Your task to perform on an android device: set default search engine in the chrome app Image 0: 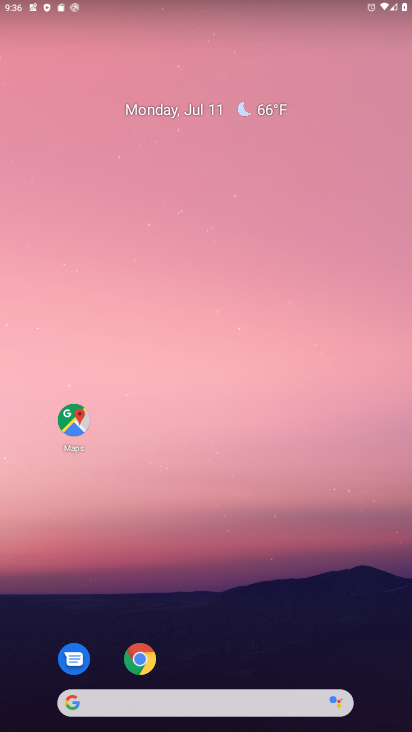
Step 0: drag from (357, 663) to (358, 110)
Your task to perform on an android device: set default search engine in the chrome app Image 1: 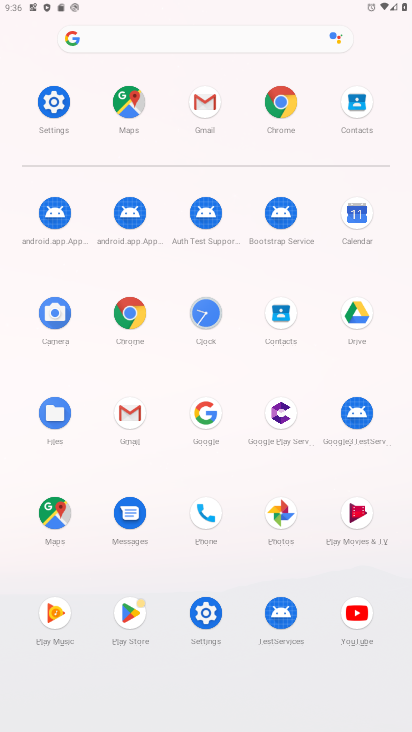
Step 1: click (137, 312)
Your task to perform on an android device: set default search engine in the chrome app Image 2: 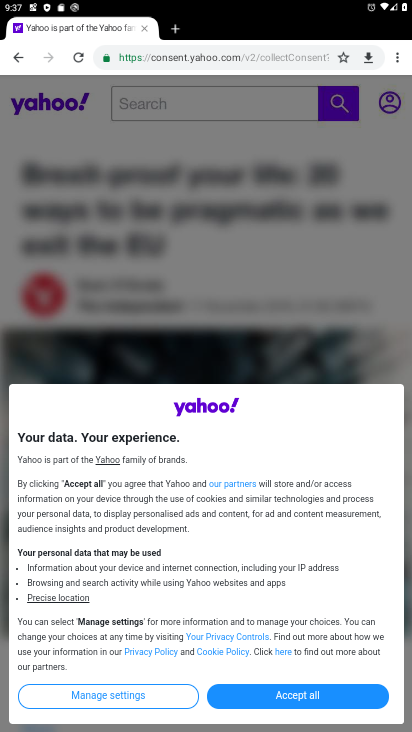
Step 2: click (397, 61)
Your task to perform on an android device: set default search engine in the chrome app Image 3: 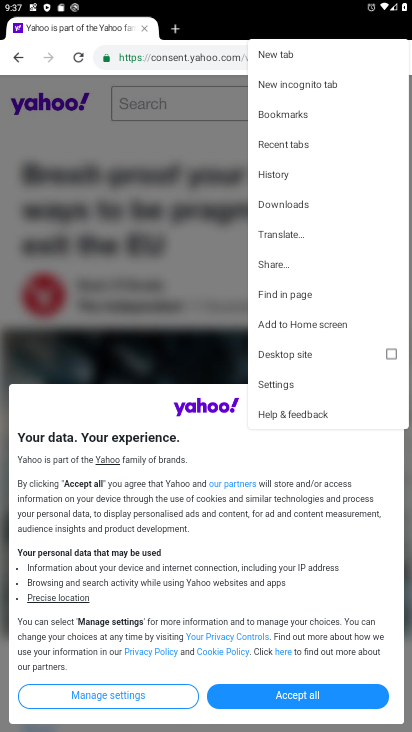
Step 3: click (288, 388)
Your task to perform on an android device: set default search engine in the chrome app Image 4: 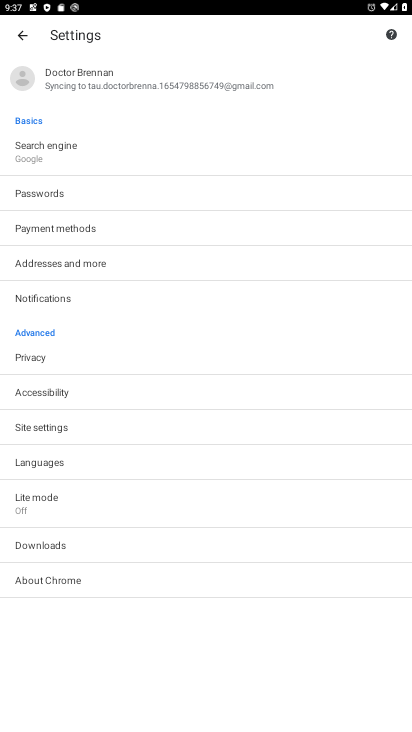
Step 4: drag from (278, 443) to (287, 231)
Your task to perform on an android device: set default search engine in the chrome app Image 5: 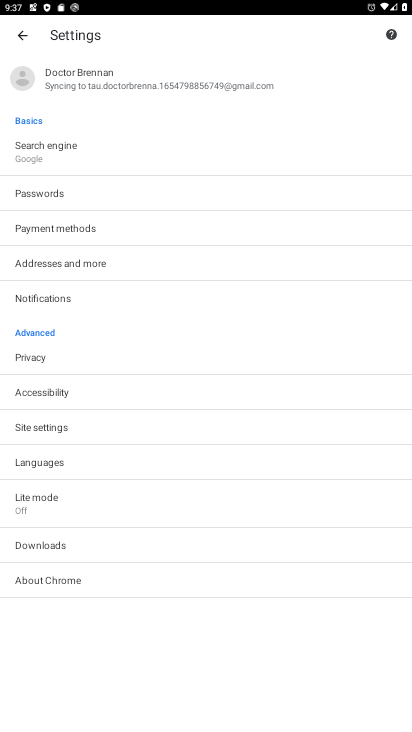
Step 5: click (92, 162)
Your task to perform on an android device: set default search engine in the chrome app Image 6: 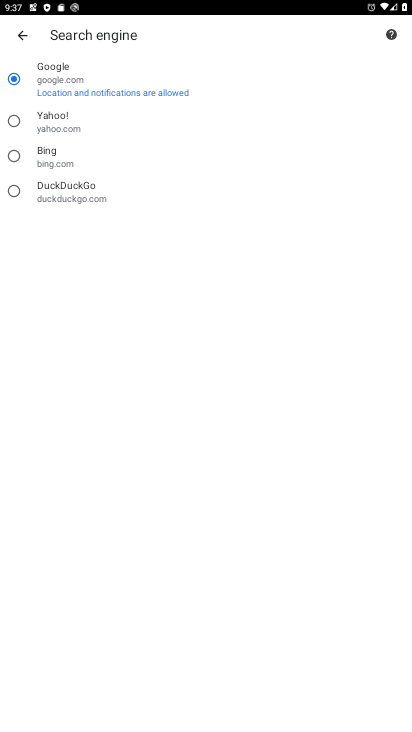
Step 6: click (49, 162)
Your task to perform on an android device: set default search engine in the chrome app Image 7: 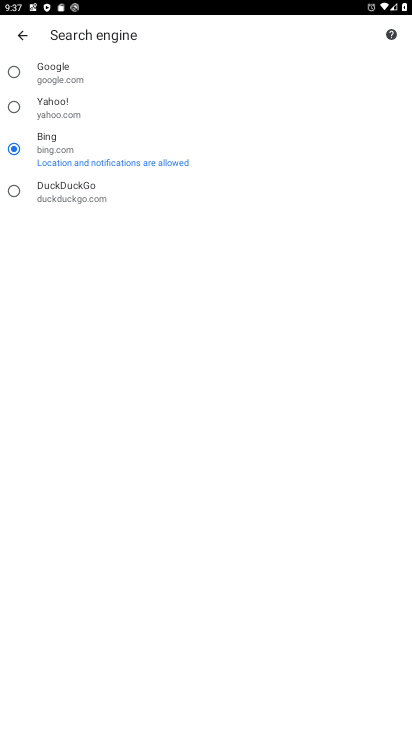
Step 7: task complete